Your task to perform on an android device: open sync settings in chrome Image 0: 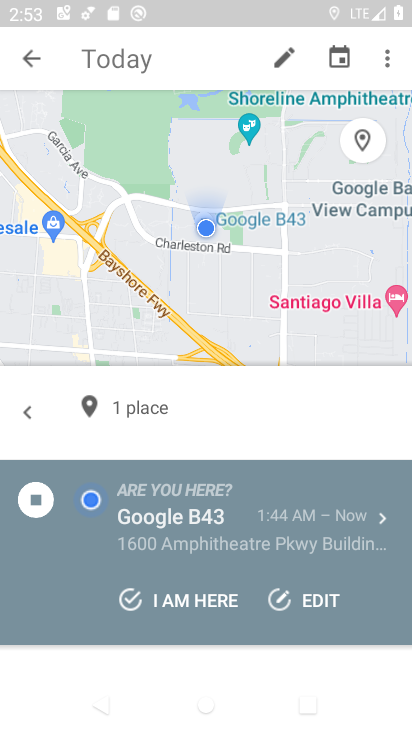
Step 0: press home button
Your task to perform on an android device: open sync settings in chrome Image 1: 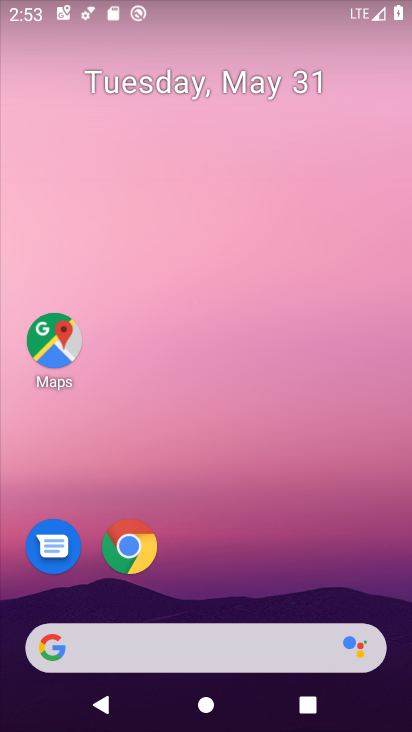
Step 1: drag from (261, 548) to (230, 68)
Your task to perform on an android device: open sync settings in chrome Image 2: 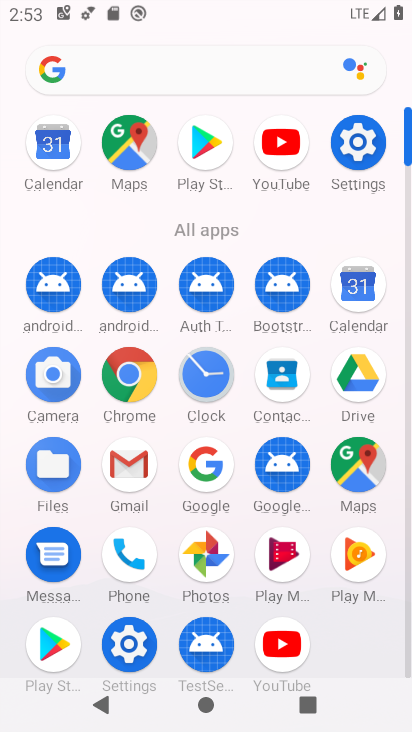
Step 2: click (144, 379)
Your task to perform on an android device: open sync settings in chrome Image 3: 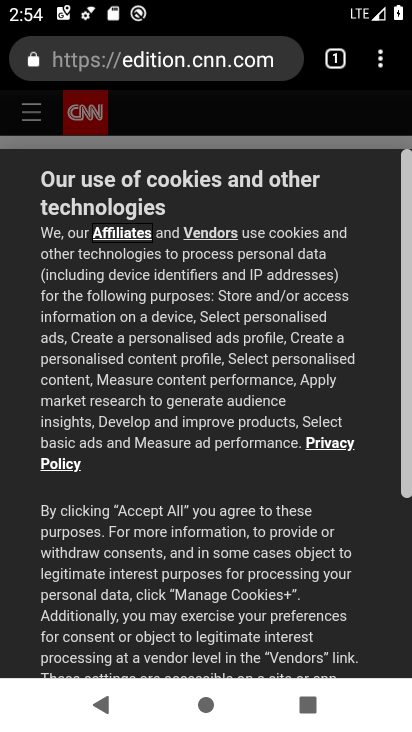
Step 3: click (393, 62)
Your task to perform on an android device: open sync settings in chrome Image 4: 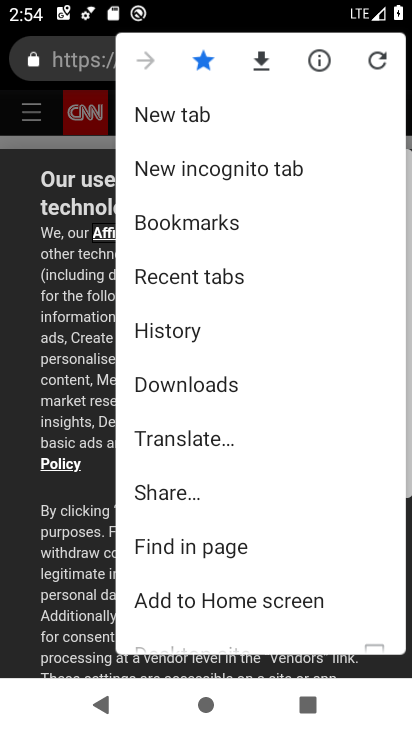
Step 4: drag from (258, 460) to (262, 95)
Your task to perform on an android device: open sync settings in chrome Image 5: 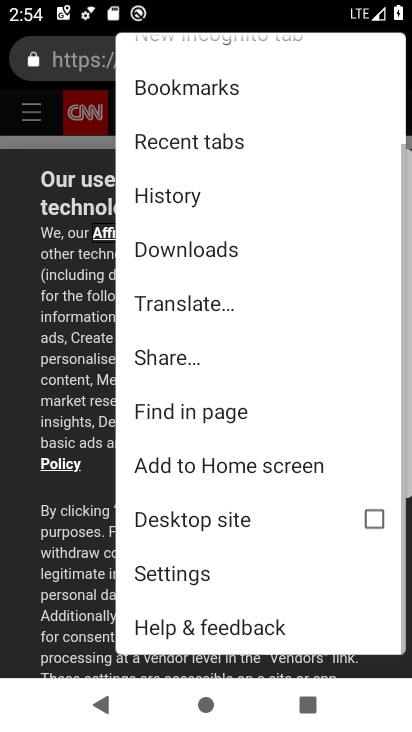
Step 5: click (223, 567)
Your task to perform on an android device: open sync settings in chrome Image 6: 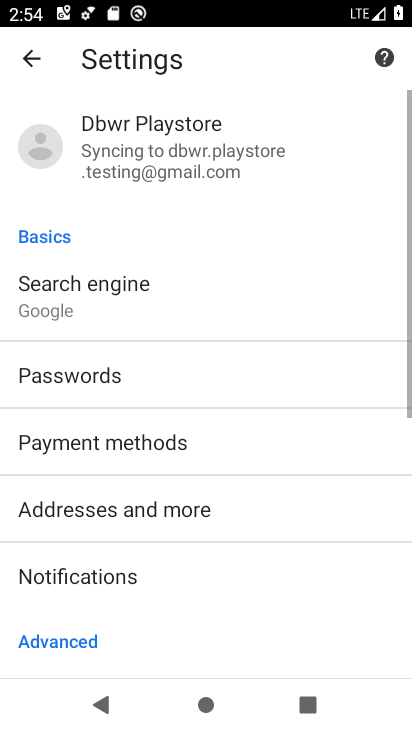
Step 6: drag from (171, 592) to (217, 135)
Your task to perform on an android device: open sync settings in chrome Image 7: 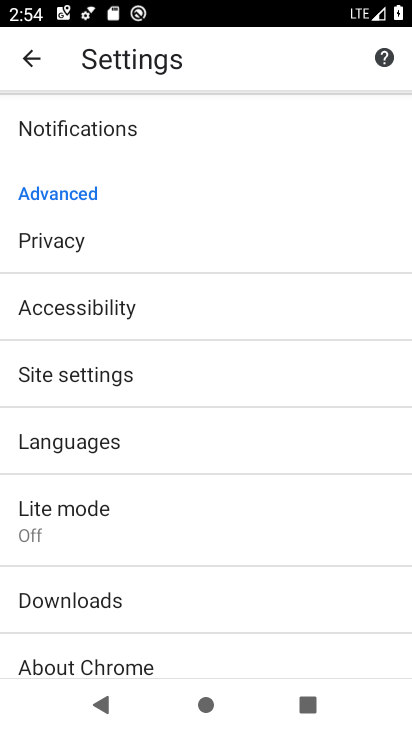
Step 7: click (159, 378)
Your task to perform on an android device: open sync settings in chrome Image 8: 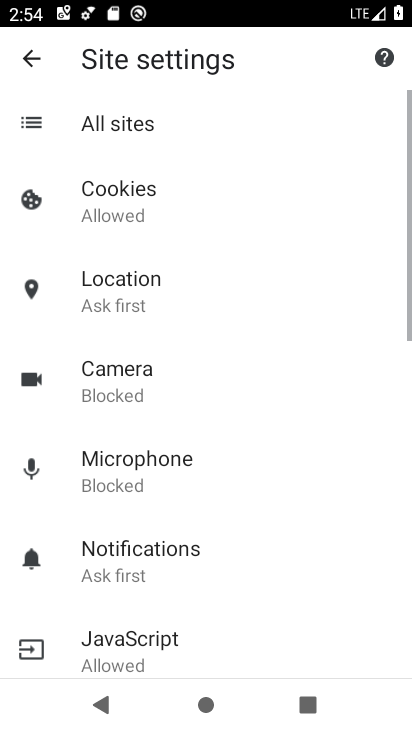
Step 8: drag from (226, 575) to (241, 297)
Your task to perform on an android device: open sync settings in chrome Image 9: 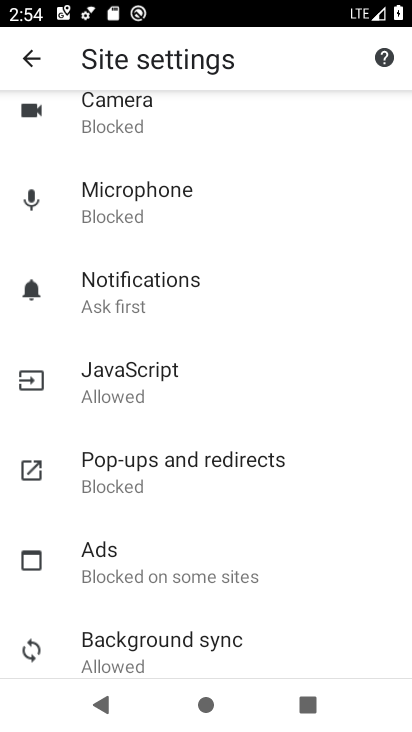
Step 9: click (208, 640)
Your task to perform on an android device: open sync settings in chrome Image 10: 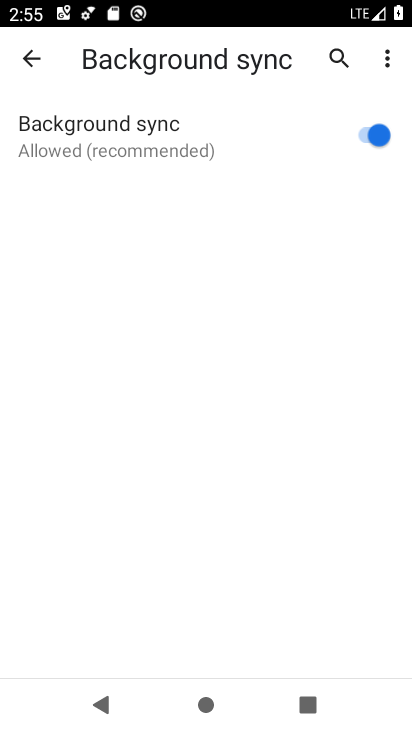
Step 10: task complete